Your task to perform on an android device: Open Reddit.com Image 0: 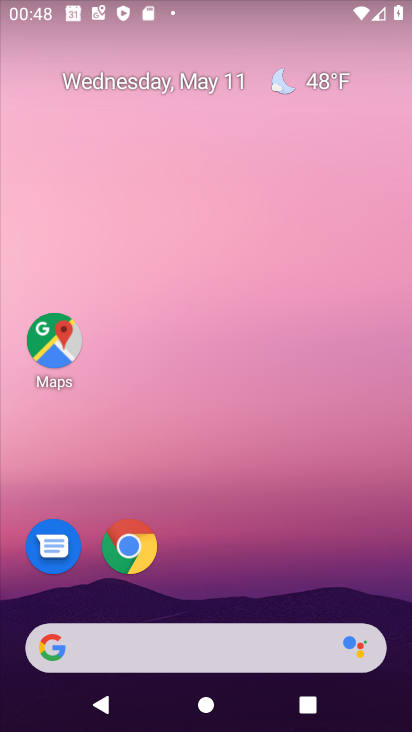
Step 0: click (127, 533)
Your task to perform on an android device: Open Reddit.com Image 1: 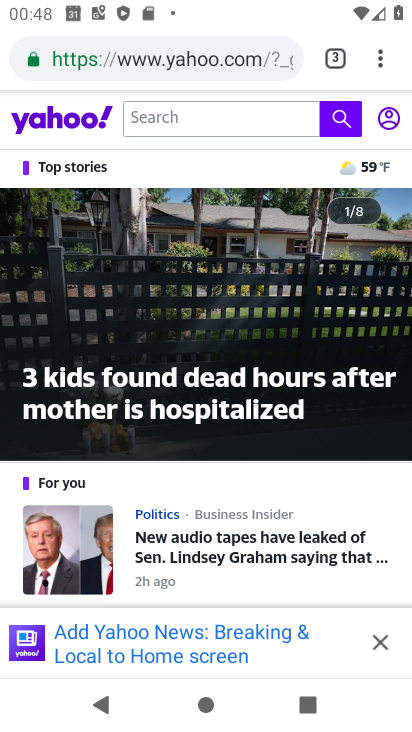
Step 1: click (327, 59)
Your task to perform on an android device: Open Reddit.com Image 2: 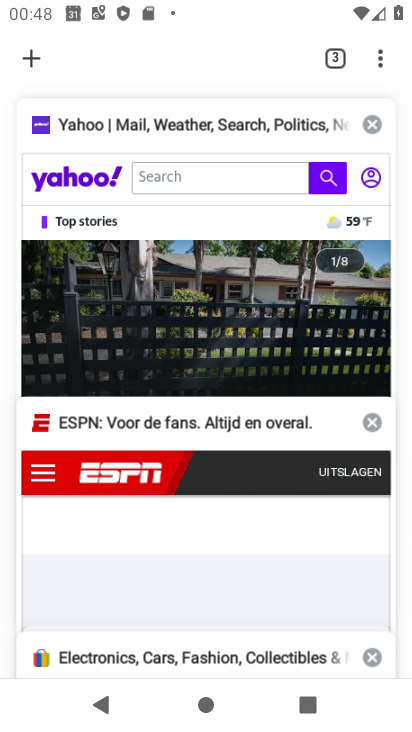
Step 2: click (38, 51)
Your task to perform on an android device: Open Reddit.com Image 3: 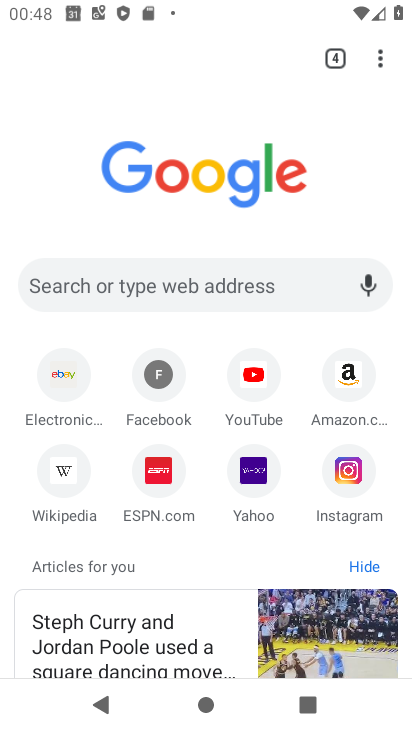
Step 3: click (170, 278)
Your task to perform on an android device: Open Reddit.com Image 4: 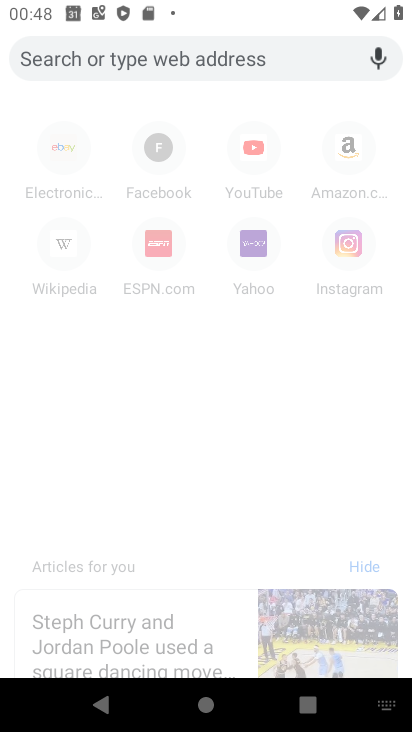
Step 4: type "Reddit.com"
Your task to perform on an android device: Open Reddit.com Image 5: 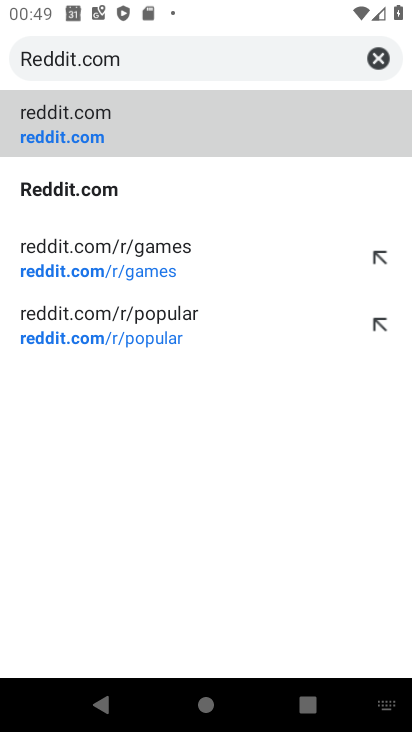
Step 5: click (201, 139)
Your task to perform on an android device: Open Reddit.com Image 6: 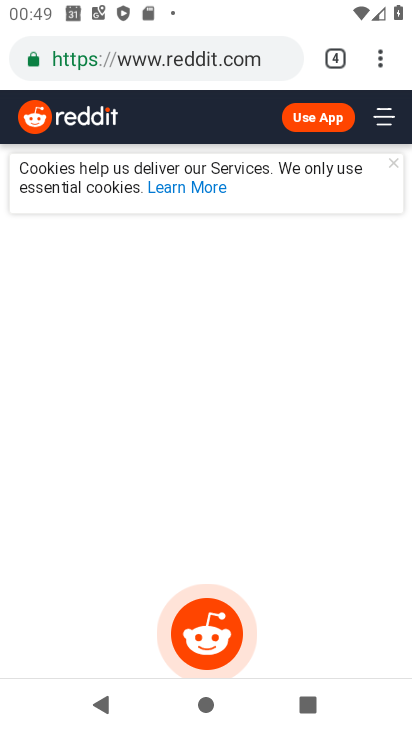
Step 6: task complete